Your task to perform on an android device: turn vacation reply on in the gmail app Image 0: 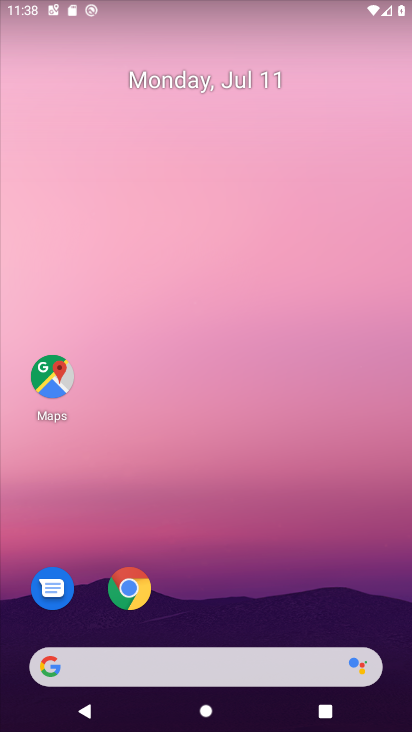
Step 0: drag from (259, 687) to (175, 161)
Your task to perform on an android device: turn vacation reply on in the gmail app Image 1: 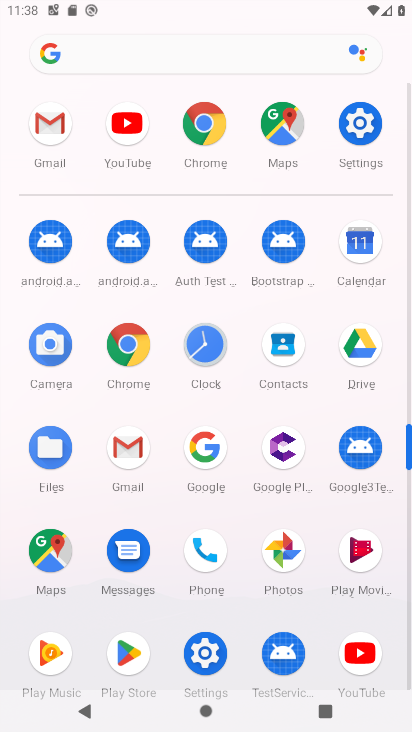
Step 1: click (117, 438)
Your task to perform on an android device: turn vacation reply on in the gmail app Image 2: 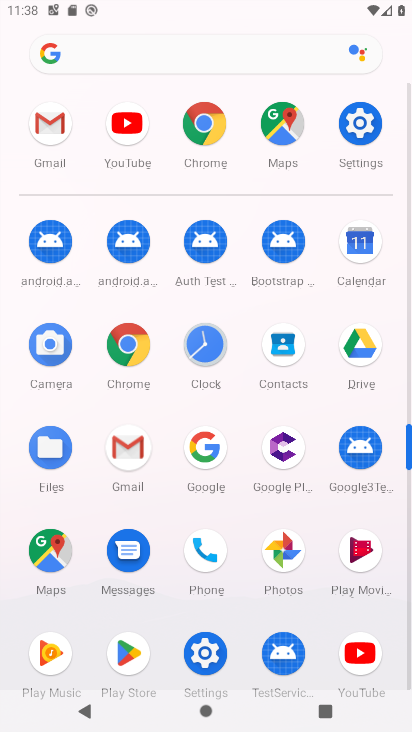
Step 2: click (126, 440)
Your task to perform on an android device: turn vacation reply on in the gmail app Image 3: 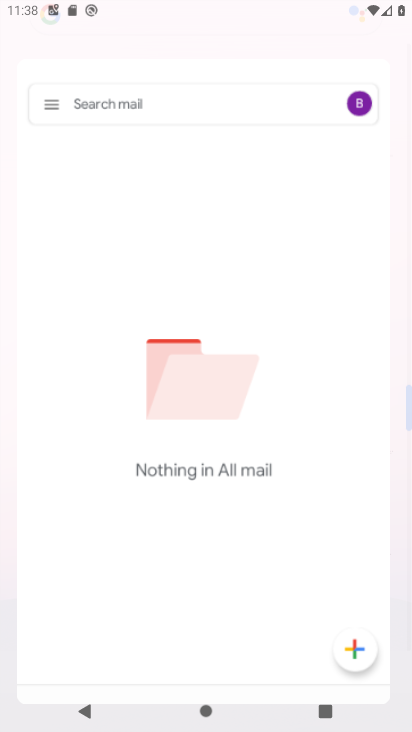
Step 3: click (126, 442)
Your task to perform on an android device: turn vacation reply on in the gmail app Image 4: 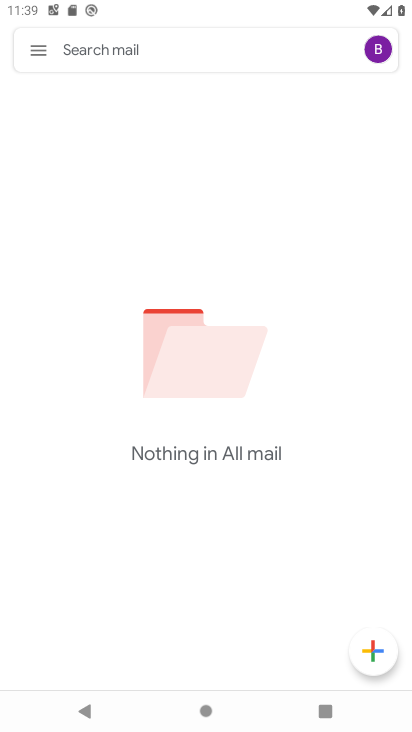
Step 4: click (35, 49)
Your task to perform on an android device: turn vacation reply on in the gmail app Image 5: 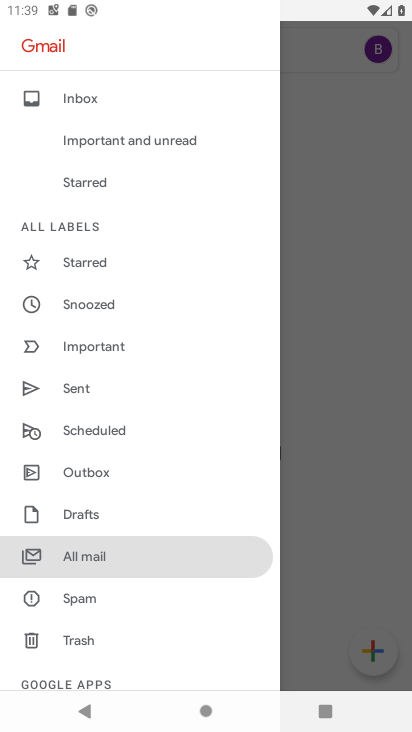
Step 5: drag from (110, 597) to (73, 332)
Your task to perform on an android device: turn vacation reply on in the gmail app Image 6: 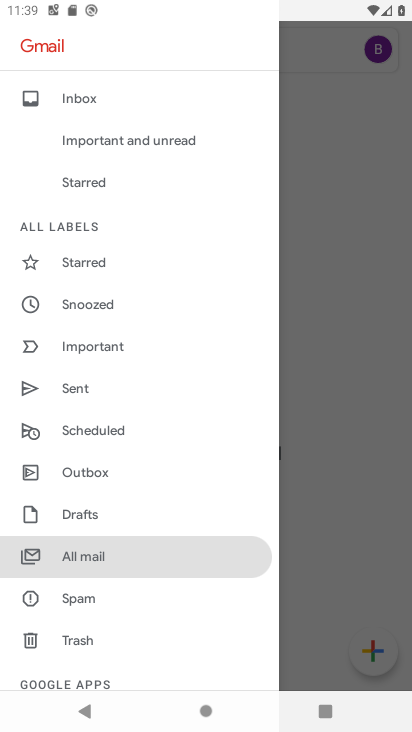
Step 6: drag from (116, 453) to (135, 216)
Your task to perform on an android device: turn vacation reply on in the gmail app Image 7: 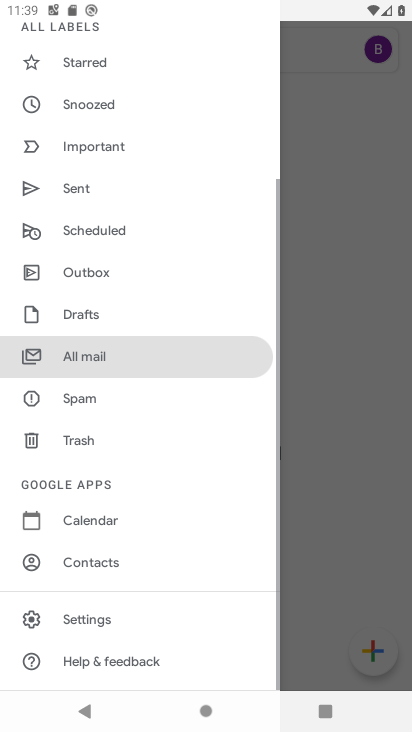
Step 7: drag from (140, 598) to (182, 322)
Your task to perform on an android device: turn vacation reply on in the gmail app Image 8: 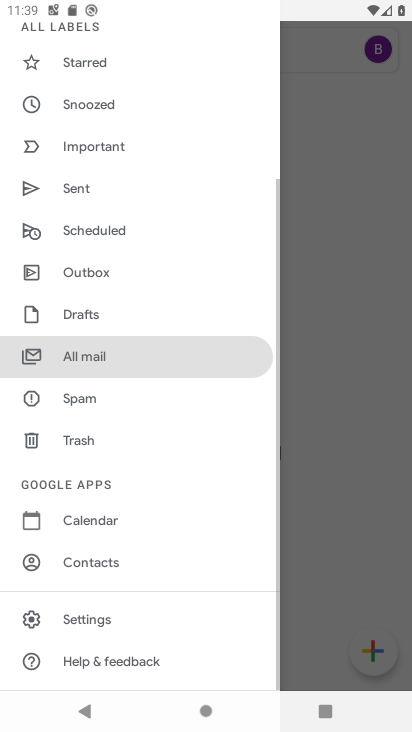
Step 8: click (84, 609)
Your task to perform on an android device: turn vacation reply on in the gmail app Image 9: 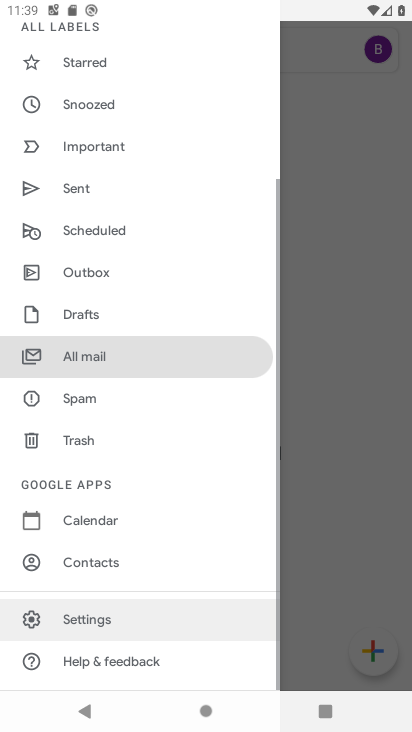
Step 9: click (91, 617)
Your task to perform on an android device: turn vacation reply on in the gmail app Image 10: 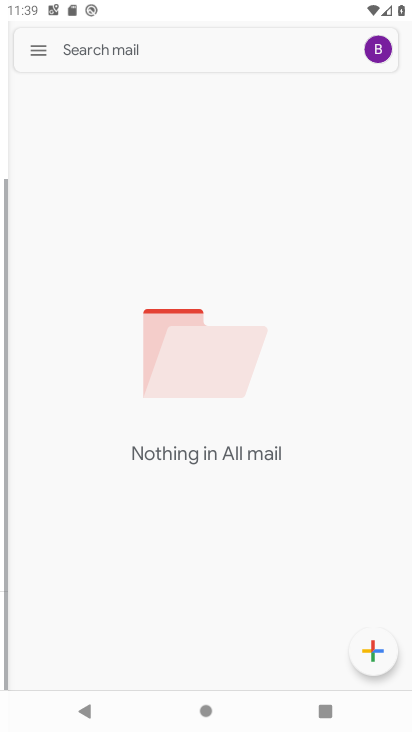
Step 10: click (92, 617)
Your task to perform on an android device: turn vacation reply on in the gmail app Image 11: 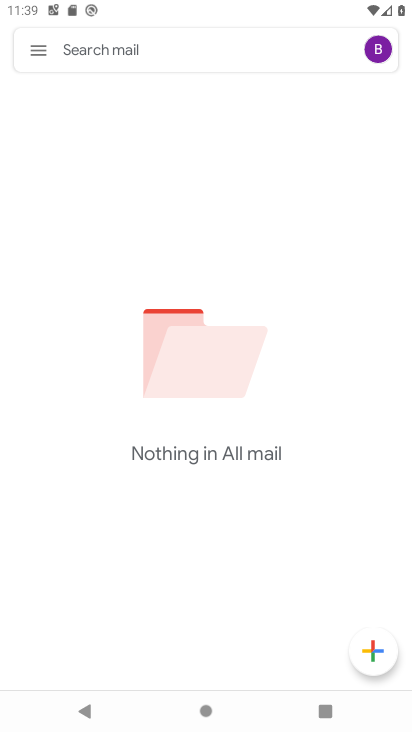
Step 11: click (96, 617)
Your task to perform on an android device: turn vacation reply on in the gmail app Image 12: 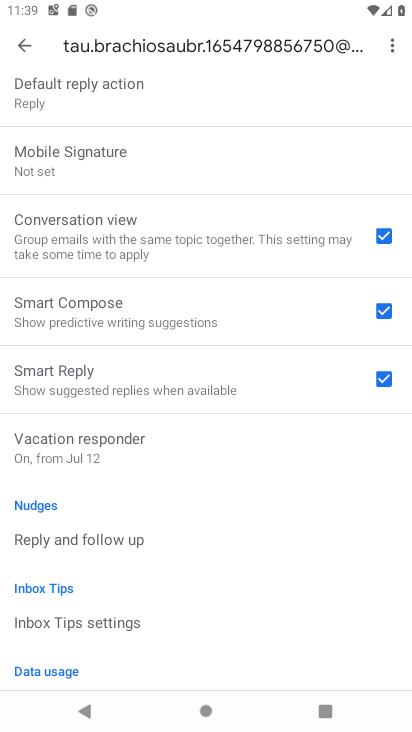
Step 12: click (66, 371)
Your task to perform on an android device: turn vacation reply on in the gmail app Image 13: 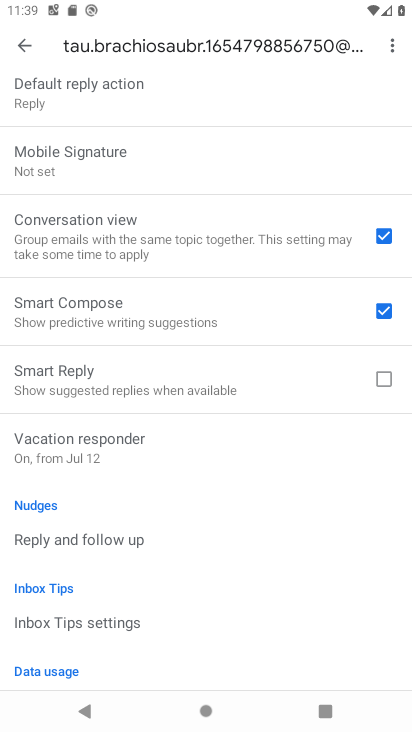
Step 13: click (62, 445)
Your task to perform on an android device: turn vacation reply on in the gmail app Image 14: 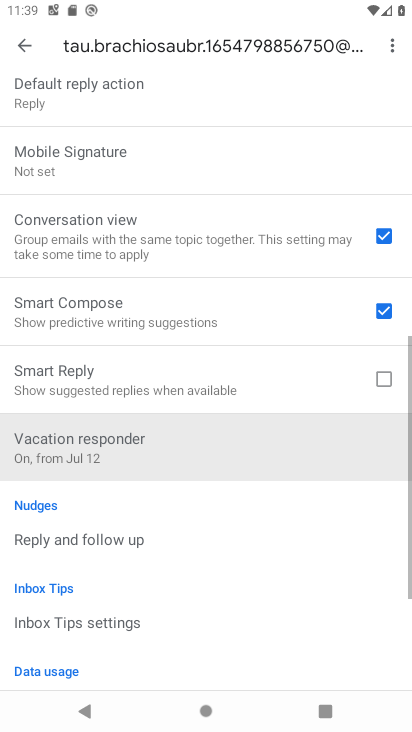
Step 14: click (62, 443)
Your task to perform on an android device: turn vacation reply on in the gmail app Image 15: 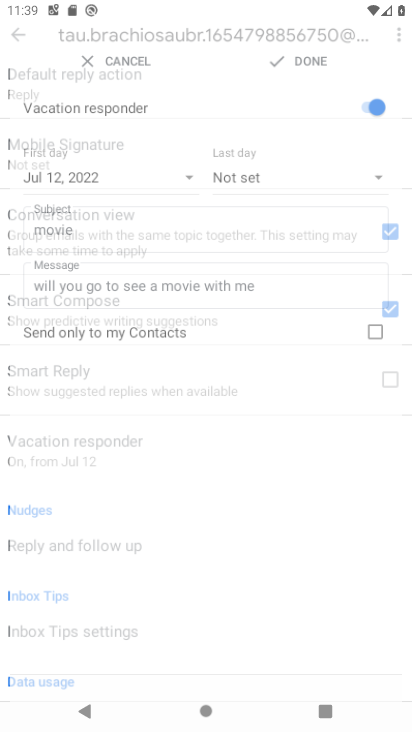
Step 15: click (63, 442)
Your task to perform on an android device: turn vacation reply on in the gmail app Image 16: 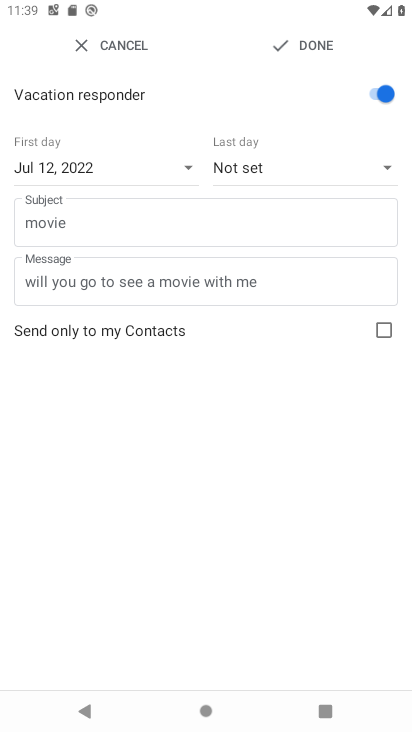
Step 16: task complete